Your task to perform on an android device: Add usb-a to the cart on bestbuy.com, then select checkout. Image 0: 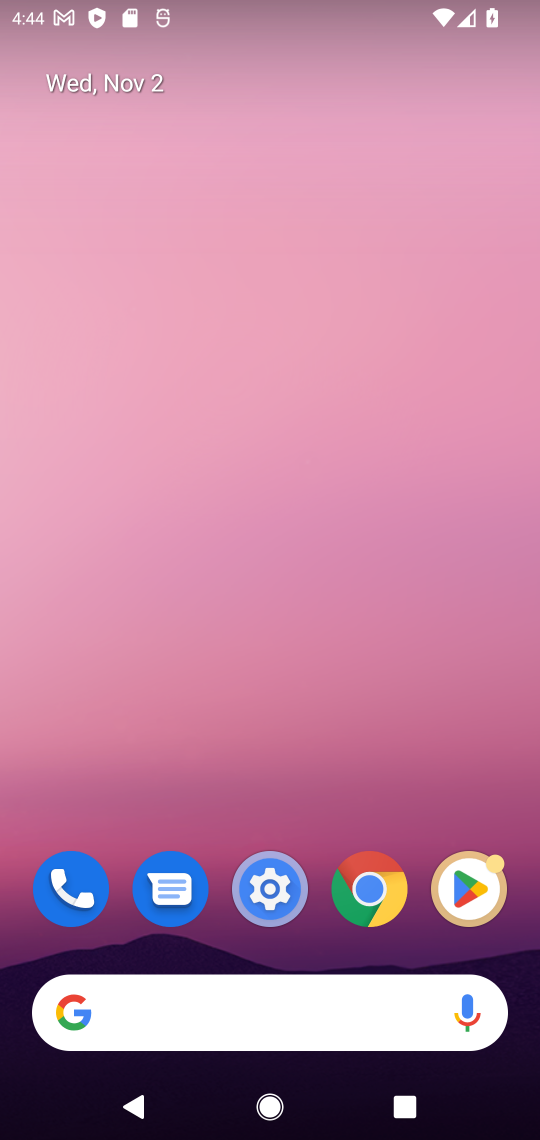
Step 0: click (372, 904)
Your task to perform on an android device: Add usb-a to the cart on bestbuy.com, then select checkout. Image 1: 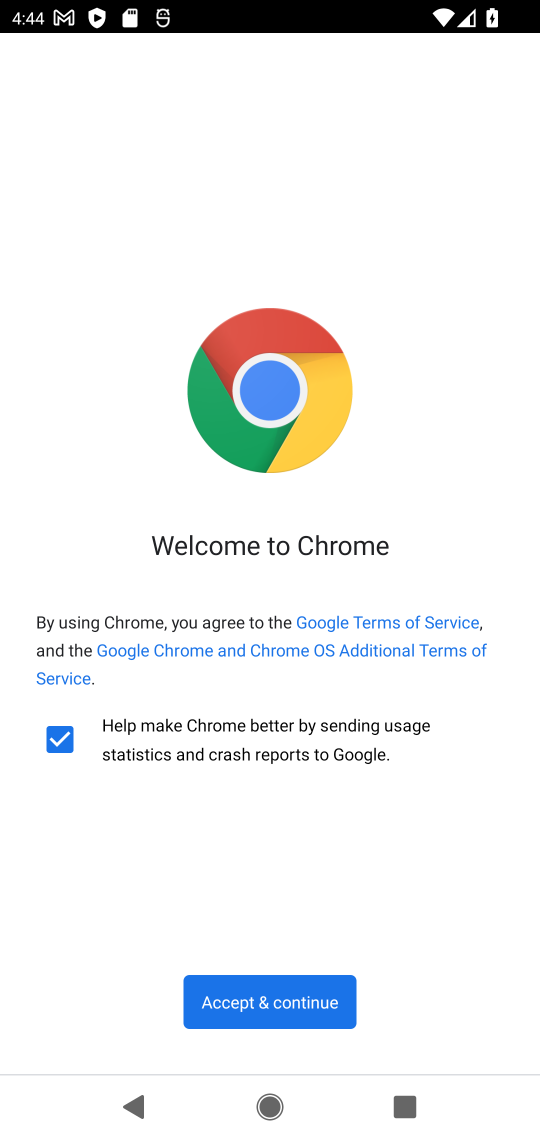
Step 1: click (278, 999)
Your task to perform on an android device: Add usb-a to the cart on bestbuy.com, then select checkout. Image 2: 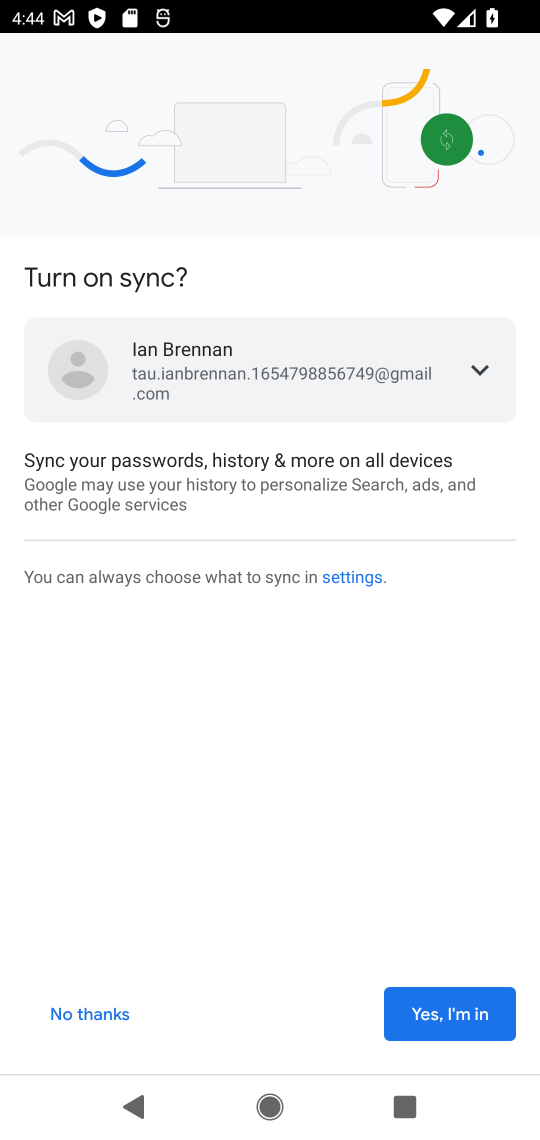
Step 2: click (428, 1004)
Your task to perform on an android device: Add usb-a to the cart on bestbuy.com, then select checkout. Image 3: 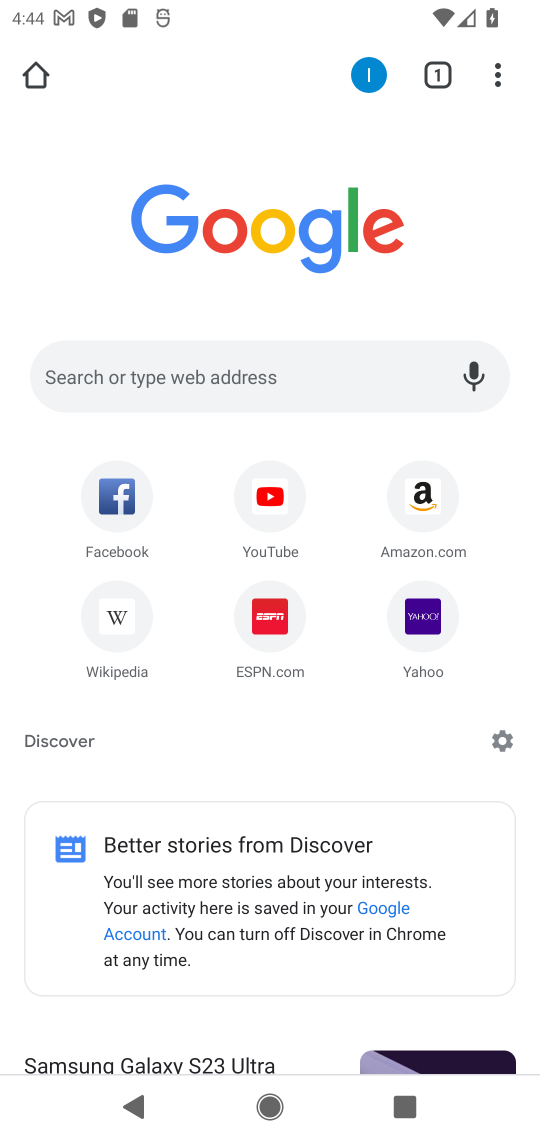
Step 3: click (300, 390)
Your task to perform on an android device: Add usb-a to the cart on bestbuy.com, then select checkout. Image 4: 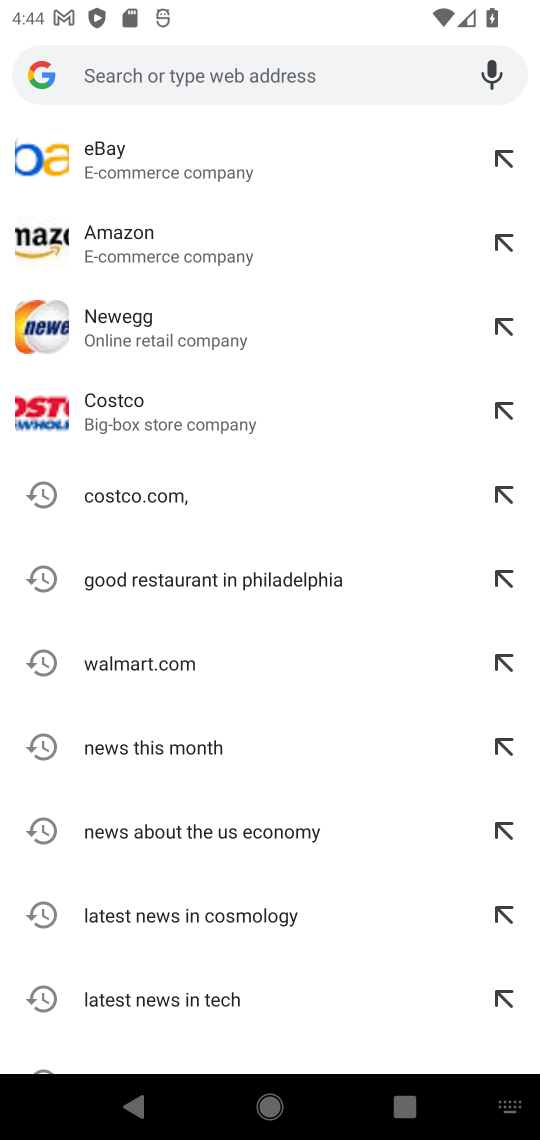
Step 4: type "bestbuy"
Your task to perform on an android device: Add usb-a to the cart on bestbuy.com, then select checkout. Image 5: 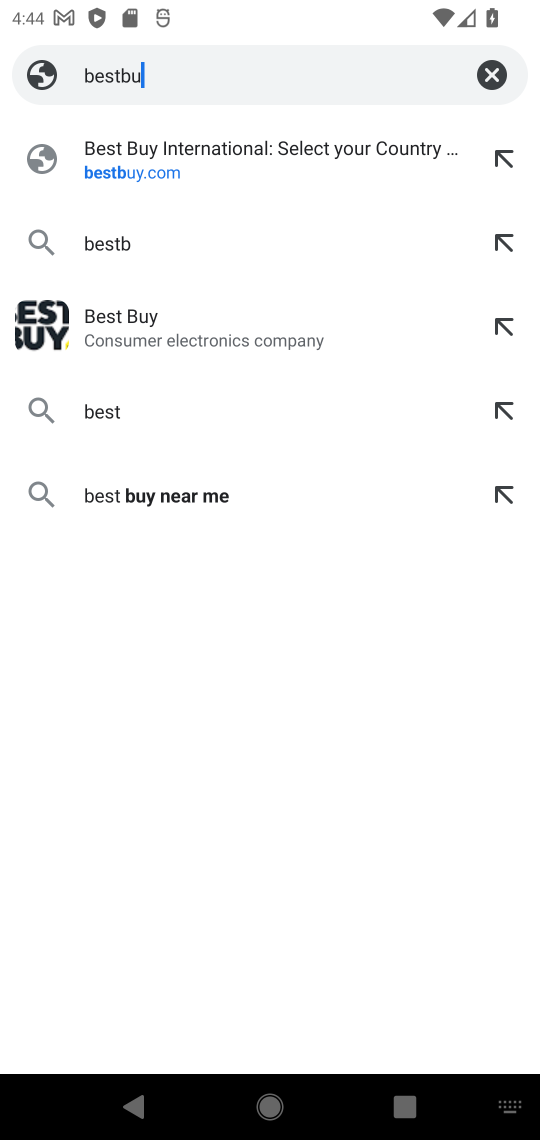
Step 5: press enter
Your task to perform on an android device: Add usb-a to the cart on bestbuy.com, then select checkout. Image 6: 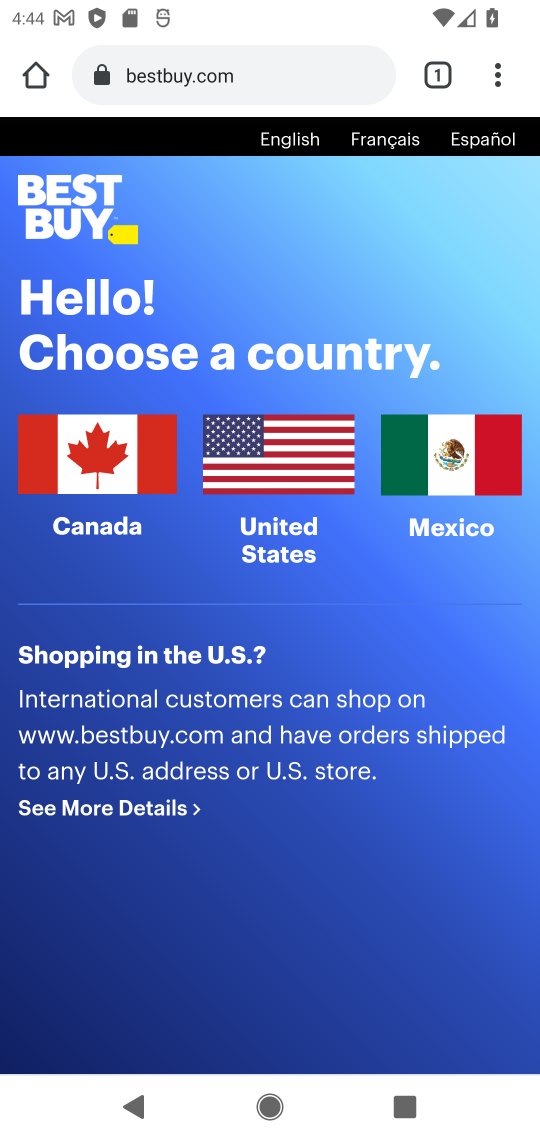
Step 6: click (93, 480)
Your task to perform on an android device: Add usb-a to the cart on bestbuy.com, then select checkout. Image 7: 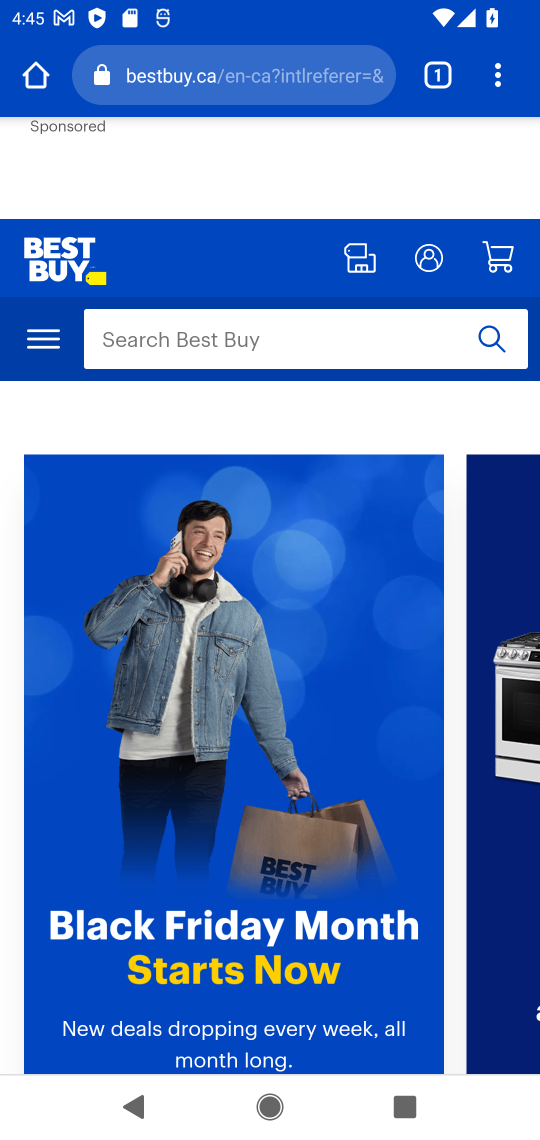
Step 7: click (161, 302)
Your task to perform on an android device: Add usb-a to the cart on bestbuy.com, then select checkout. Image 8: 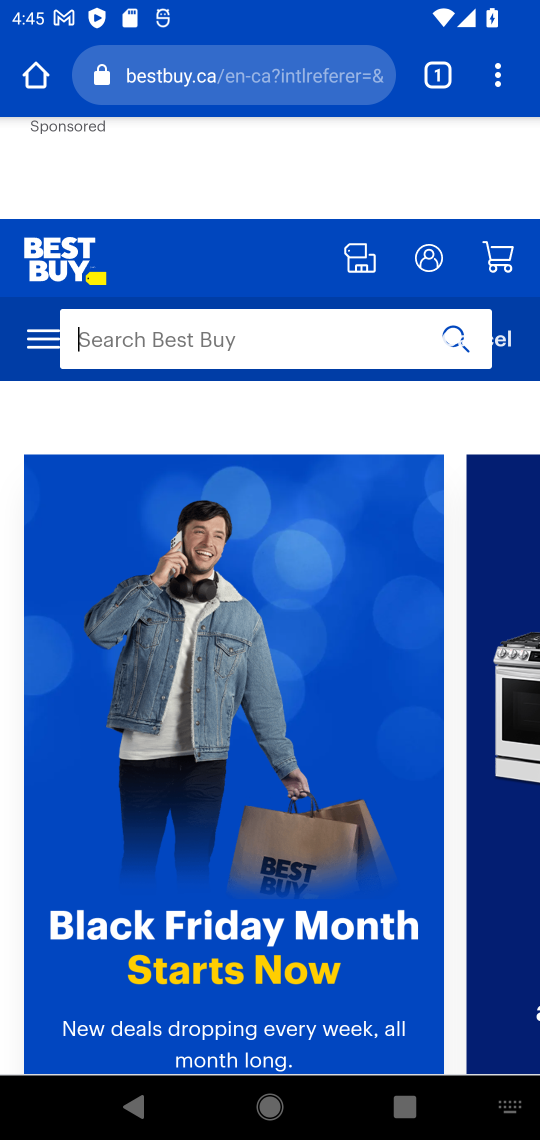
Step 8: click (152, 337)
Your task to perform on an android device: Add usb-a to the cart on bestbuy.com, then select checkout. Image 9: 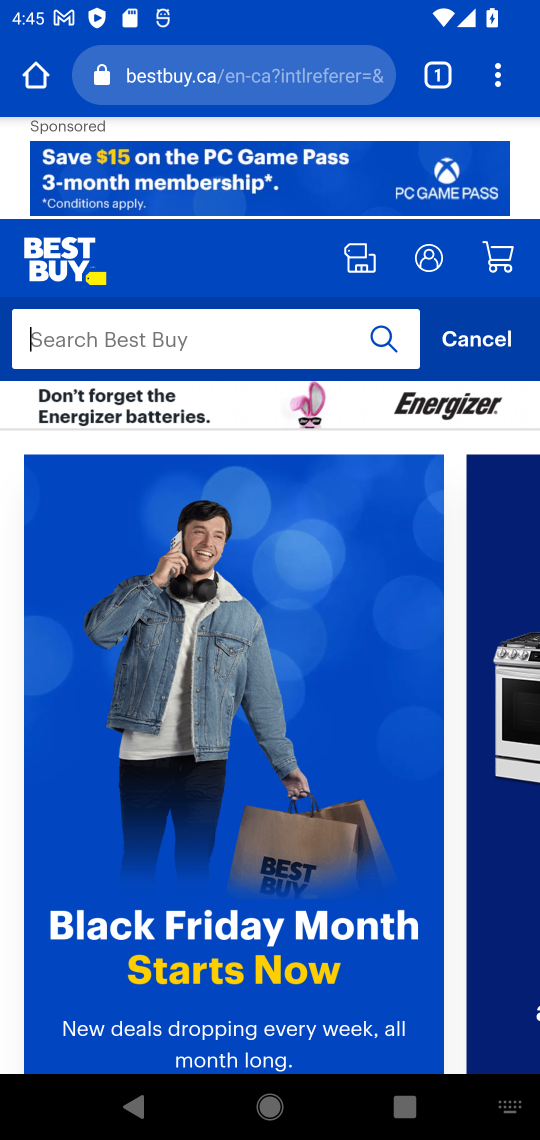
Step 9: type "usb-a"
Your task to perform on an android device: Add usb-a to the cart on bestbuy.com, then select checkout. Image 10: 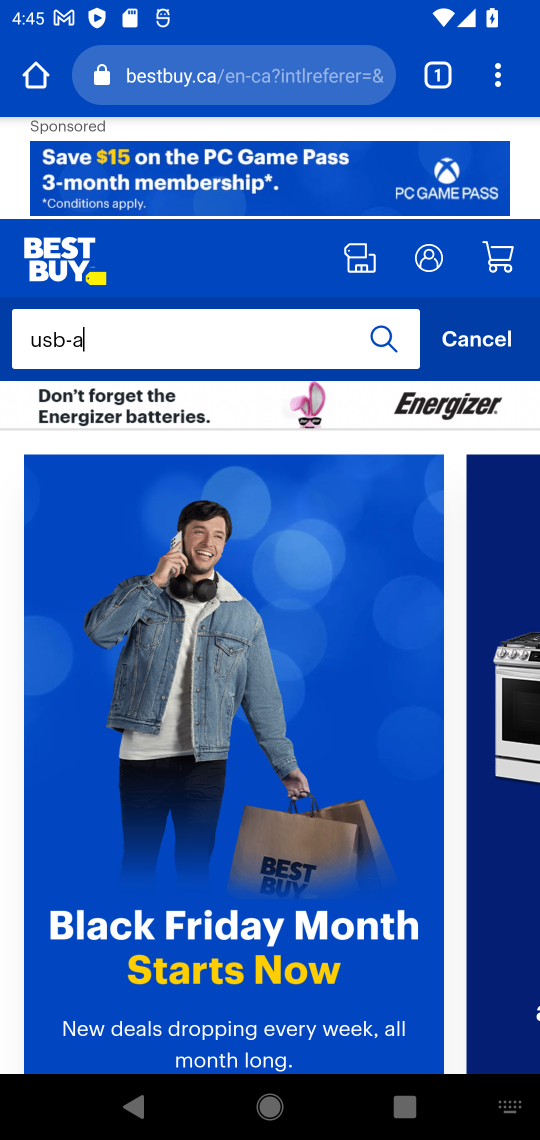
Step 10: press enter
Your task to perform on an android device: Add usb-a to the cart on bestbuy.com, then select checkout. Image 11: 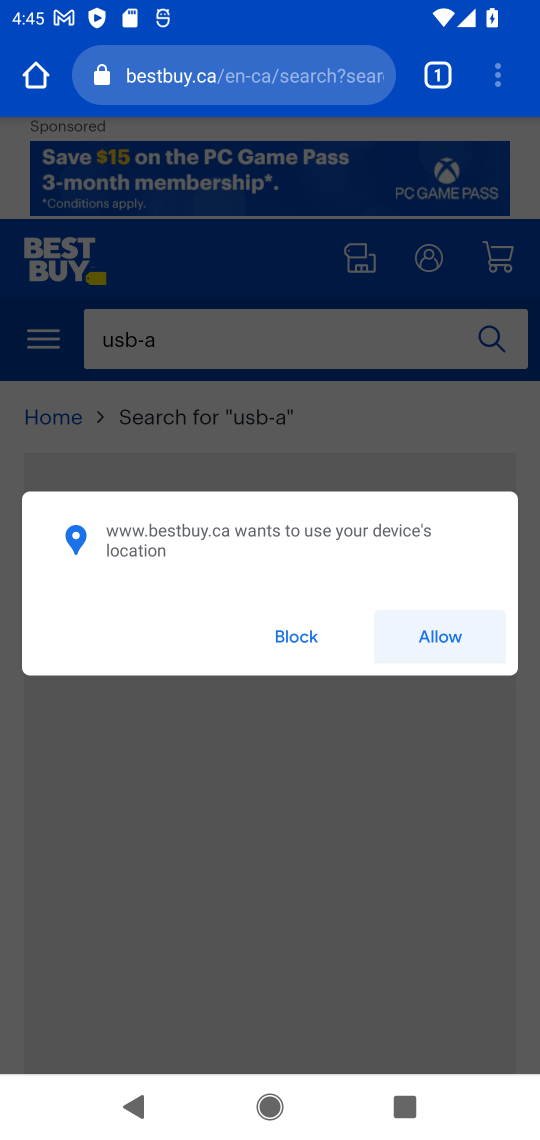
Step 11: click (297, 633)
Your task to perform on an android device: Add usb-a to the cart on bestbuy.com, then select checkout. Image 12: 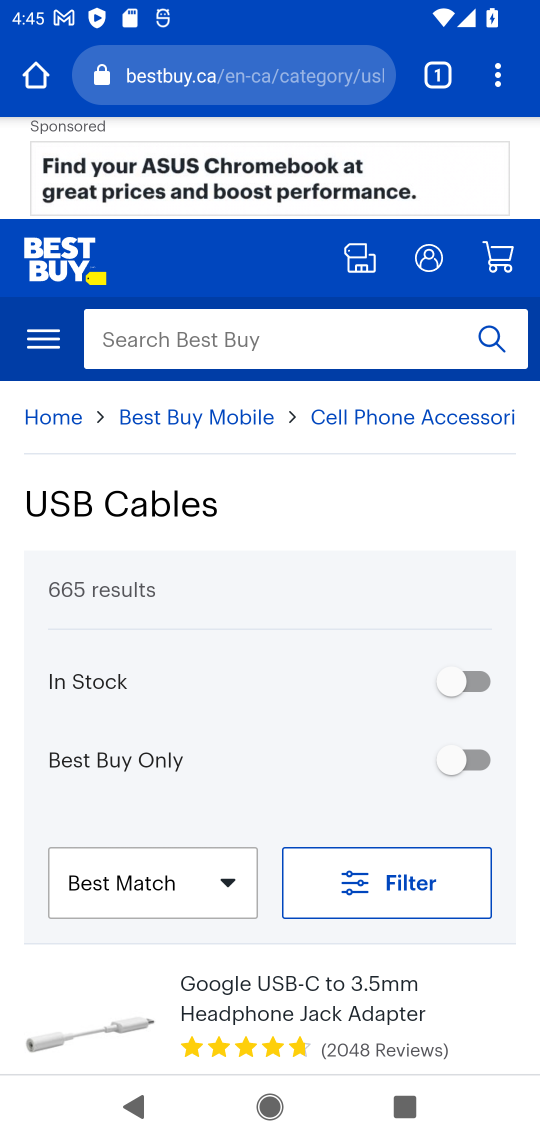
Step 12: drag from (228, 774) to (334, 474)
Your task to perform on an android device: Add usb-a to the cart on bestbuy.com, then select checkout. Image 13: 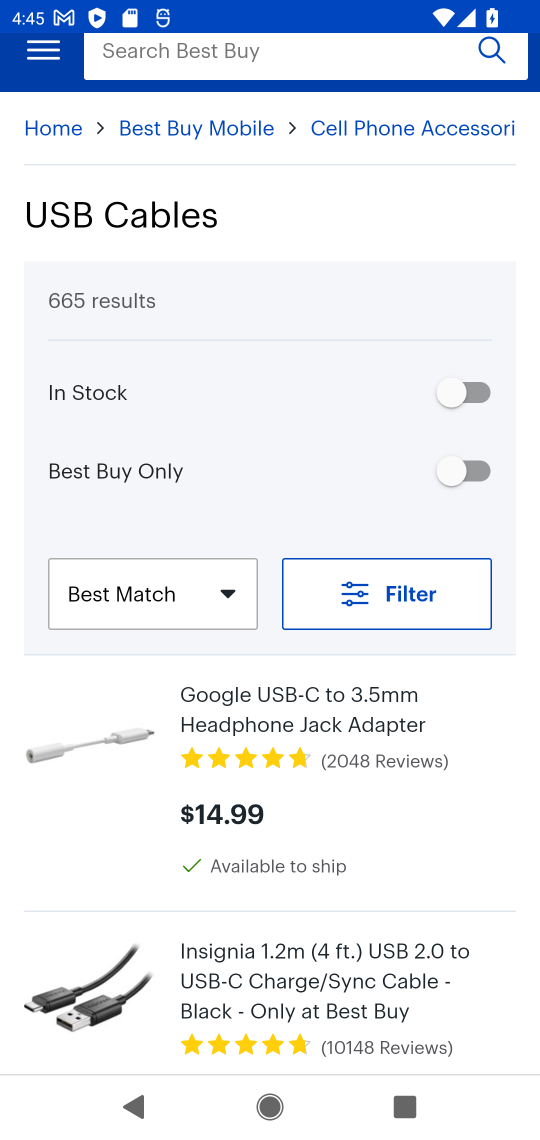
Step 13: drag from (299, 944) to (227, 1070)
Your task to perform on an android device: Add usb-a to the cart on bestbuy.com, then select checkout. Image 14: 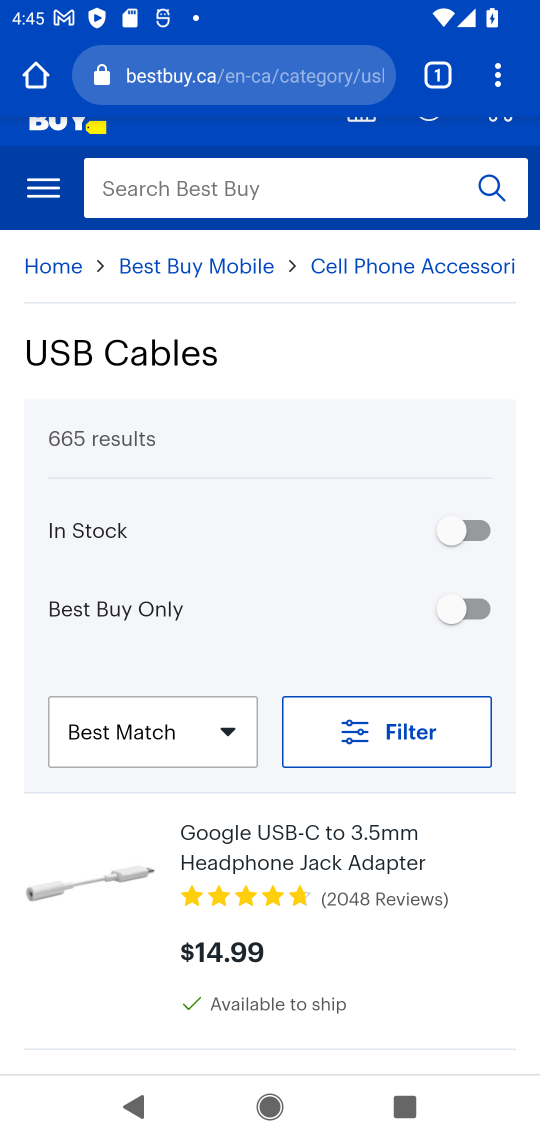
Step 14: click (103, 437)
Your task to perform on an android device: Add usb-a to the cart on bestbuy.com, then select checkout. Image 15: 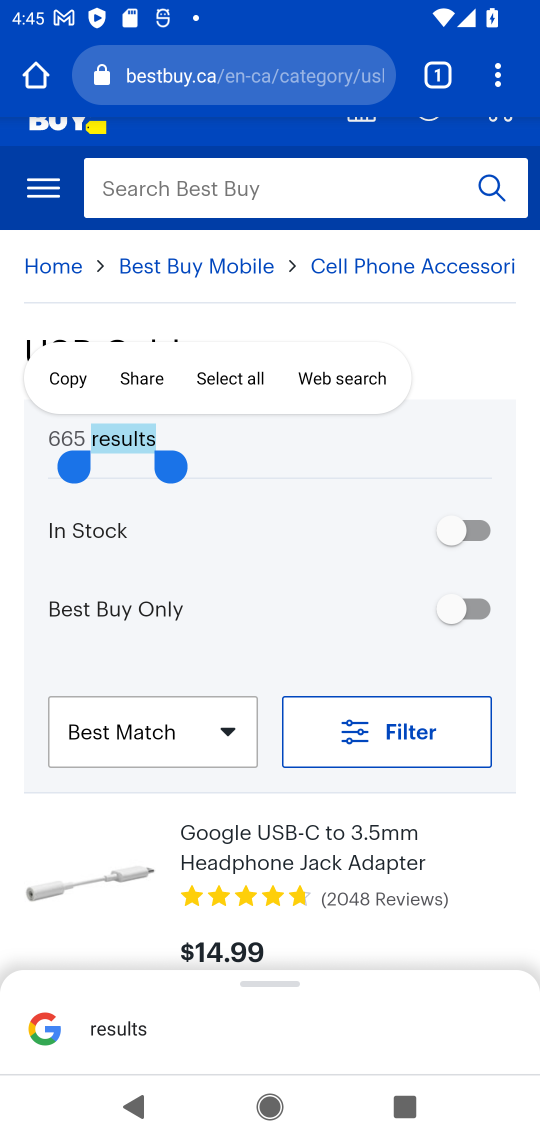
Step 15: click (242, 175)
Your task to perform on an android device: Add usb-a to the cart on bestbuy.com, then select checkout. Image 16: 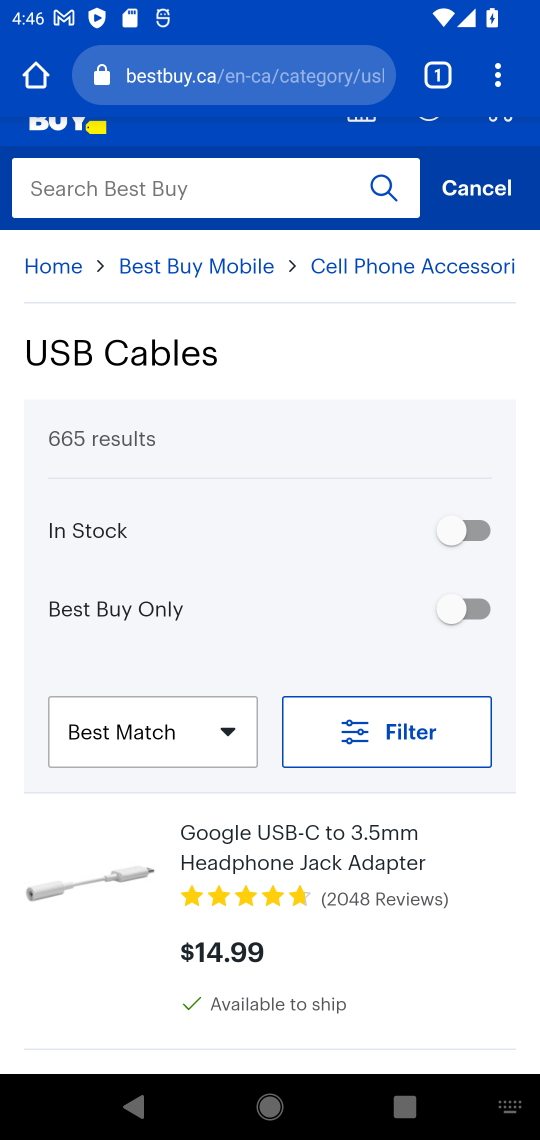
Step 16: type "usb-a"
Your task to perform on an android device: Add usb-a to the cart on bestbuy.com, then select checkout. Image 17: 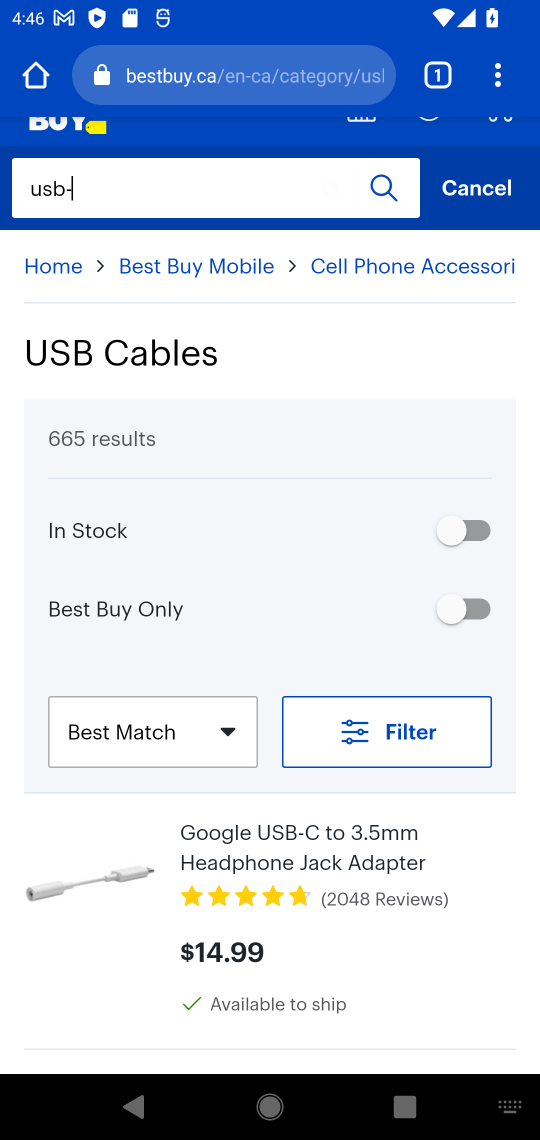
Step 17: press enter
Your task to perform on an android device: Add usb-a to the cart on bestbuy.com, then select checkout. Image 18: 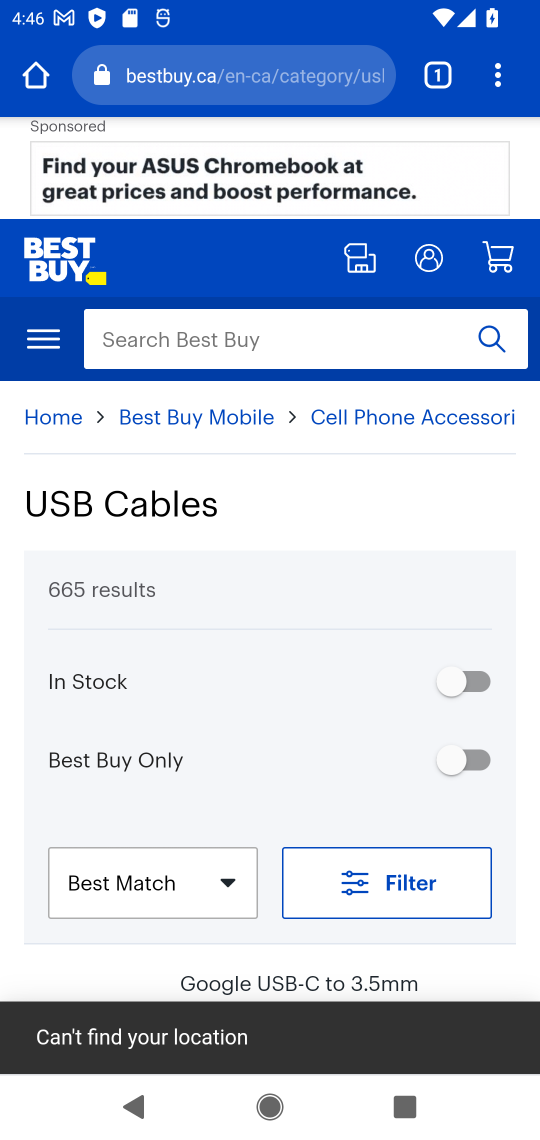
Step 18: task complete